Your task to perform on an android device: open the mobile data screen to see how much data has been used Image 0: 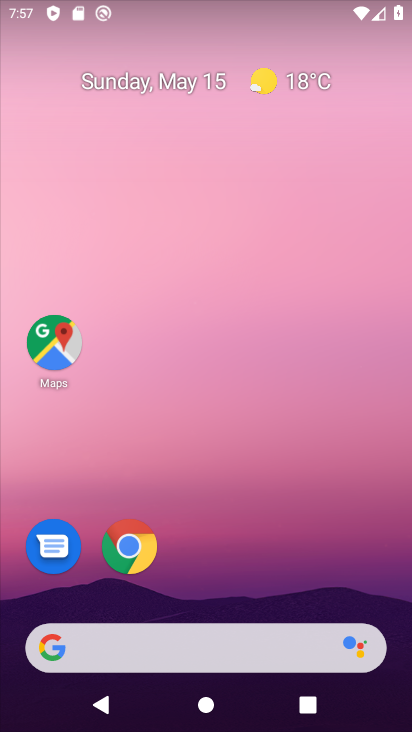
Step 0: drag from (282, 364) to (297, 105)
Your task to perform on an android device: open the mobile data screen to see how much data has been used Image 1: 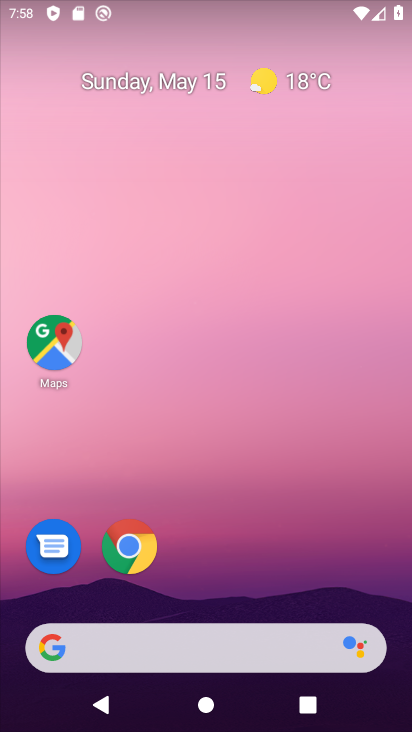
Step 1: drag from (284, 581) to (334, 249)
Your task to perform on an android device: open the mobile data screen to see how much data has been used Image 2: 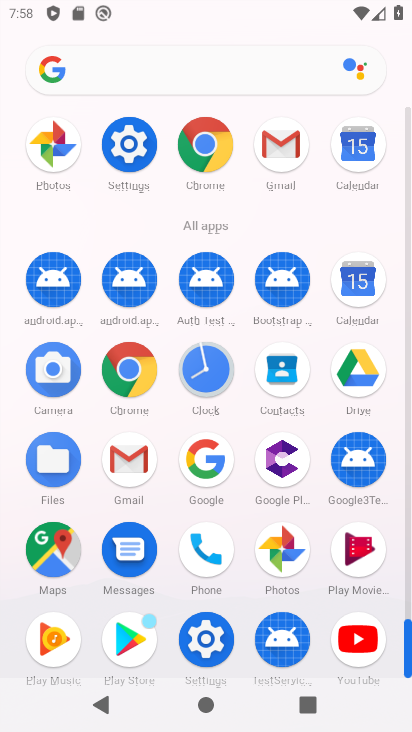
Step 2: click (131, 146)
Your task to perform on an android device: open the mobile data screen to see how much data has been used Image 3: 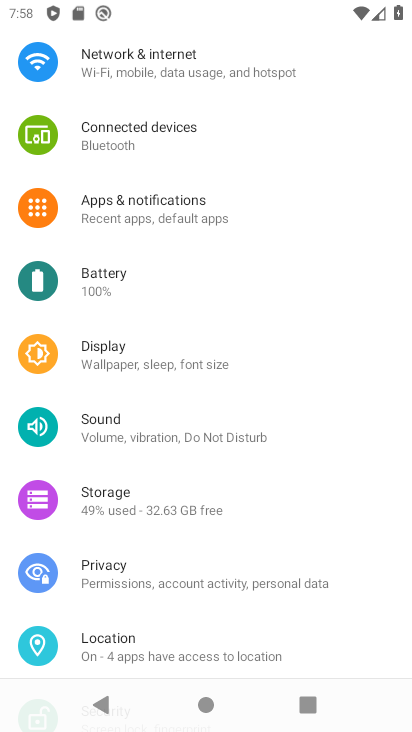
Step 3: drag from (175, 233) to (148, 640)
Your task to perform on an android device: open the mobile data screen to see how much data has been used Image 4: 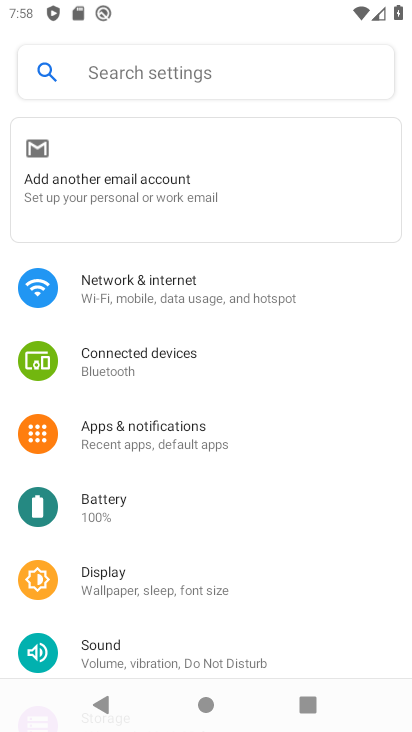
Step 4: click (150, 282)
Your task to perform on an android device: open the mobile data screen to see how much data has been used Image 5: 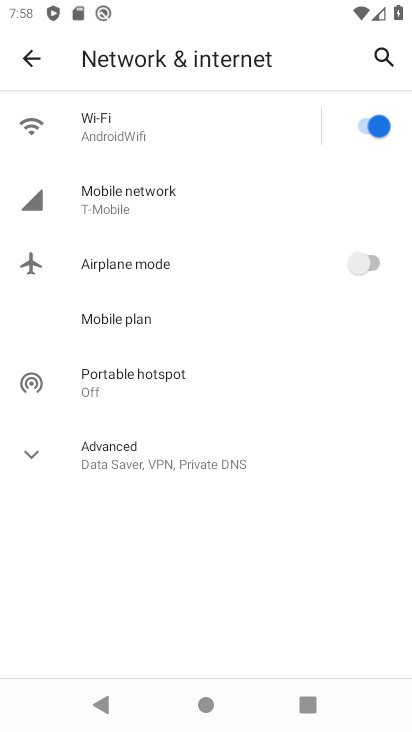
Step 5: click (138, 199)
Your task to perform on an android device: open the mobile data screen to see how much data has been used Image 6: 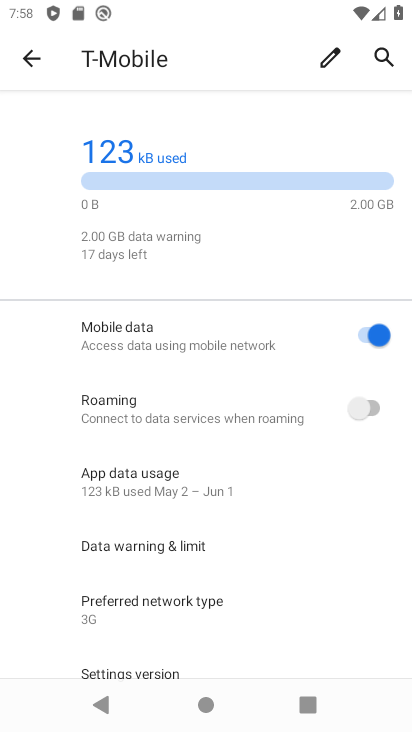
Step 6: click (185, 486)
Your task to perform on an android device: open the mobile data screen to see how much data has been used Image 7: 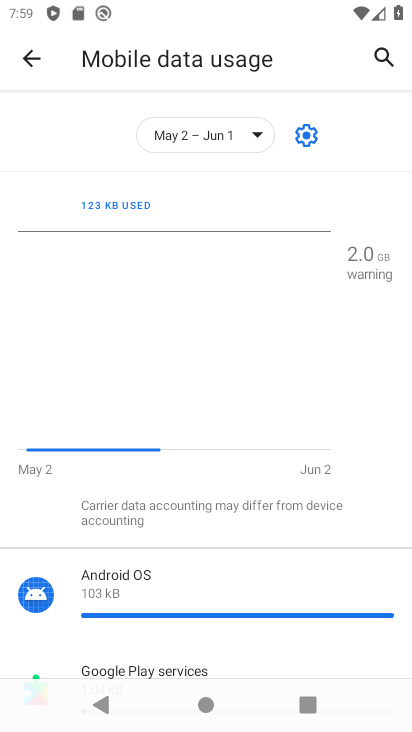
Step 7: task complete